Your task to perform on an android device: change the clock style Image 0: 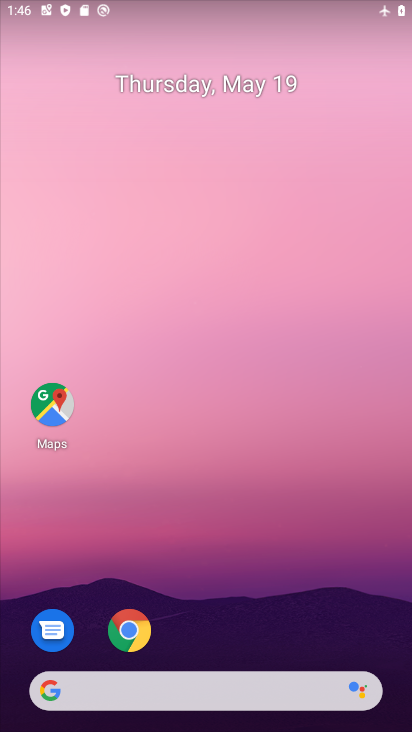
Step 0: drag from (190, 661) to (106, 36)
Your task to perform on an android device: change the clock style Image 1: 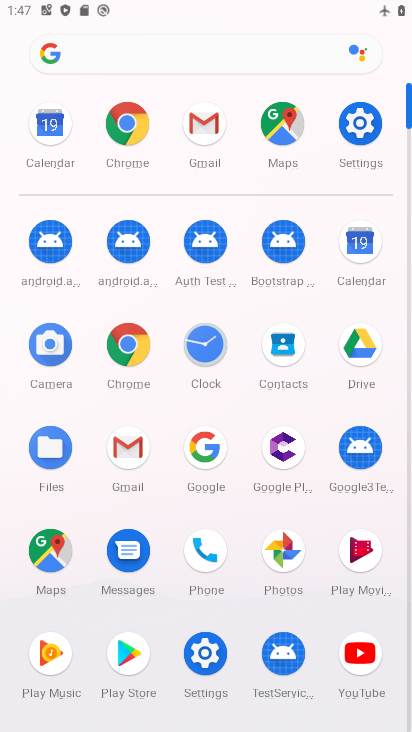
Step 1: click (193, 351)
Your task to perform on an android device: change the clock style Image 2: 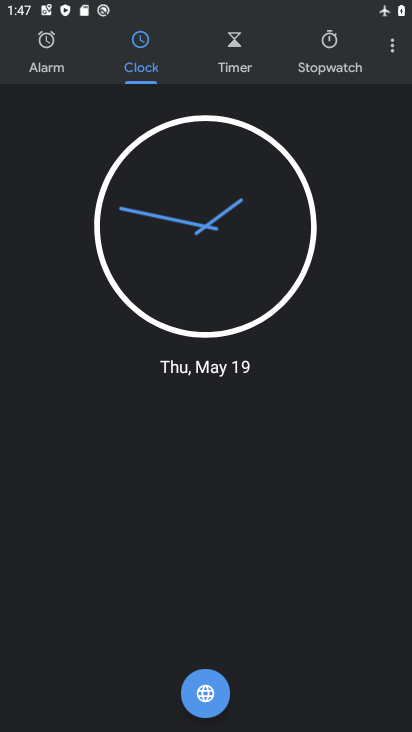
Step 2: click (390, 47)
Your task to perform on an android device: change the clock style Image 3: 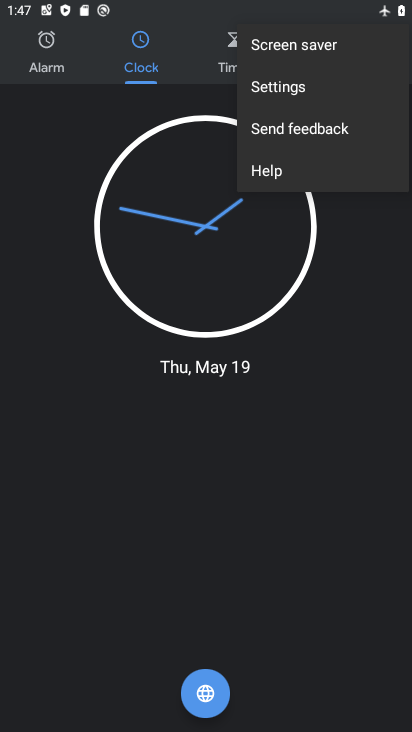
Step 3: click (311, 82)
Your task to perform on an android device: change the clock style Image 4: 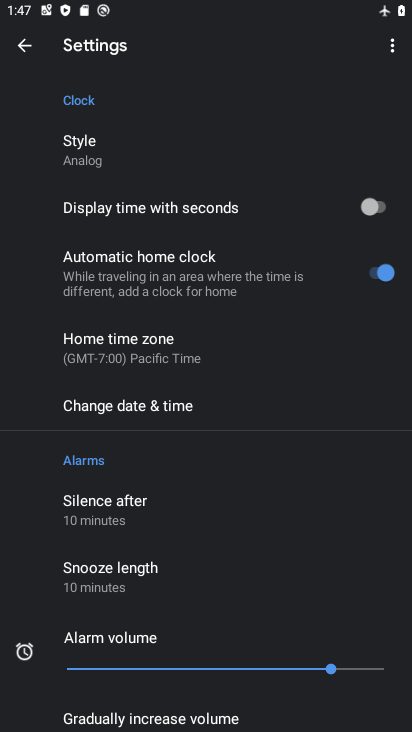
Step 4: click (105, 147)
Your task to perform on an android device: change the clock style Image 5: 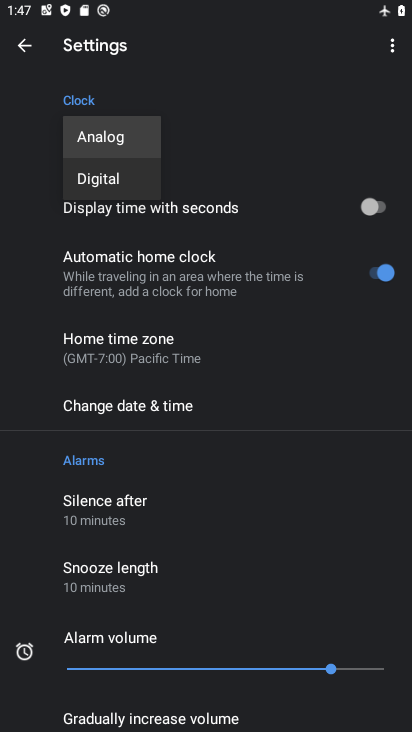
Step 5: click (85, 196)
Your task to perform on an android device: change the clock style Image 6: 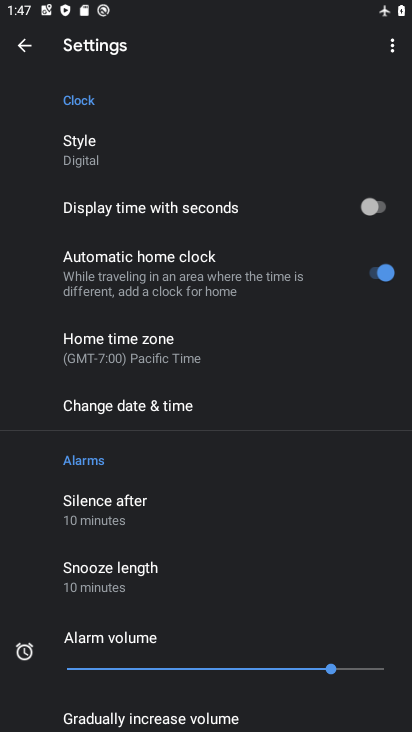
Step 6: task complete